Your task to perform on an android device: Add "asus zenbook" to the cart on target Image 0: 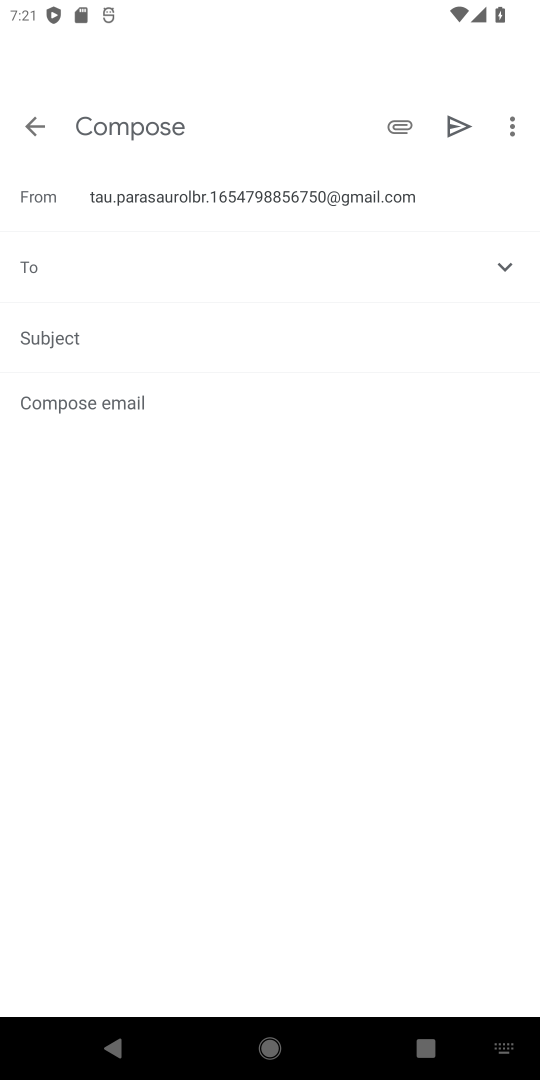
Step 0: press home button
Your task to perform on an android device: Add "asus zenbook" to the cart on target Image 1: 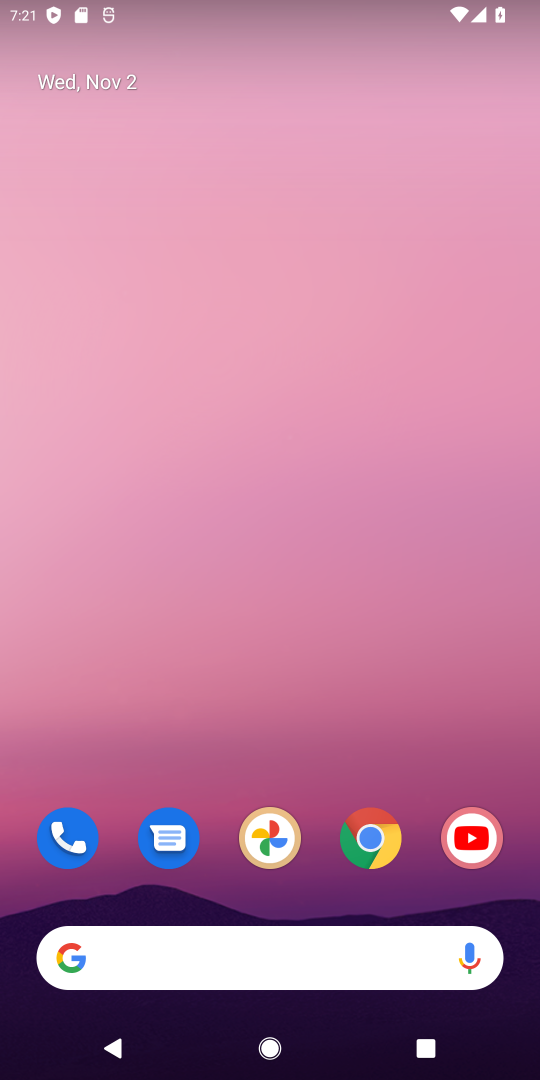
Step 1: click (388, 845)
Your task to perform on an android device: Add "asus zenbook" to the cart on target Image 2: 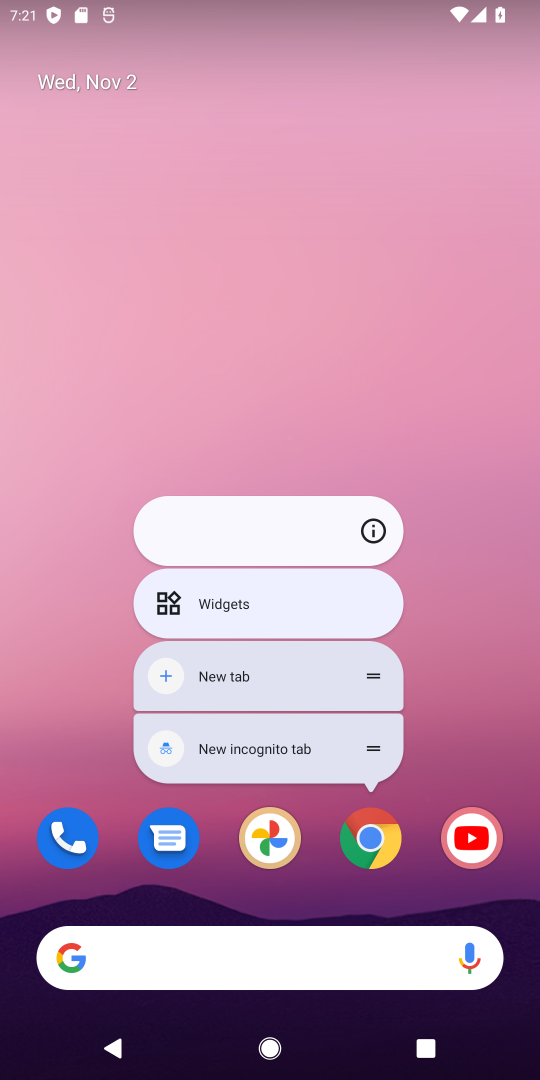
Step 2: click (371, 862)
Your task to perform on an android device: Add "asus zenbook" to the cart on target Image 3: 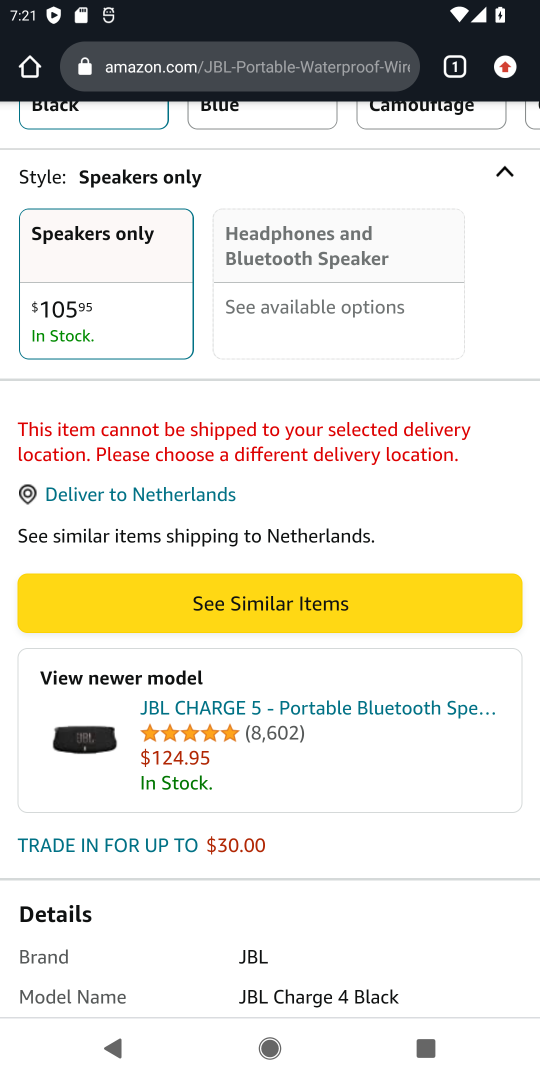
Step 3: click (319, 80)
Your task to perform on an android device: Add "asus zenbook" to the cart on target Image 4: 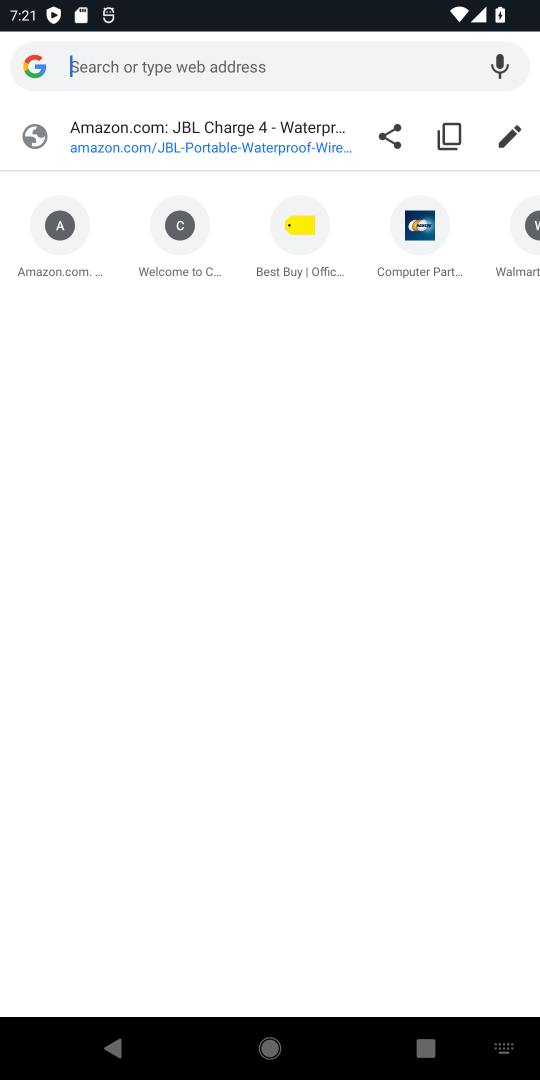
Step 4: type "target"
Your task to perform on an android device: Add "asus zenbook" to the cart on target Image 5: 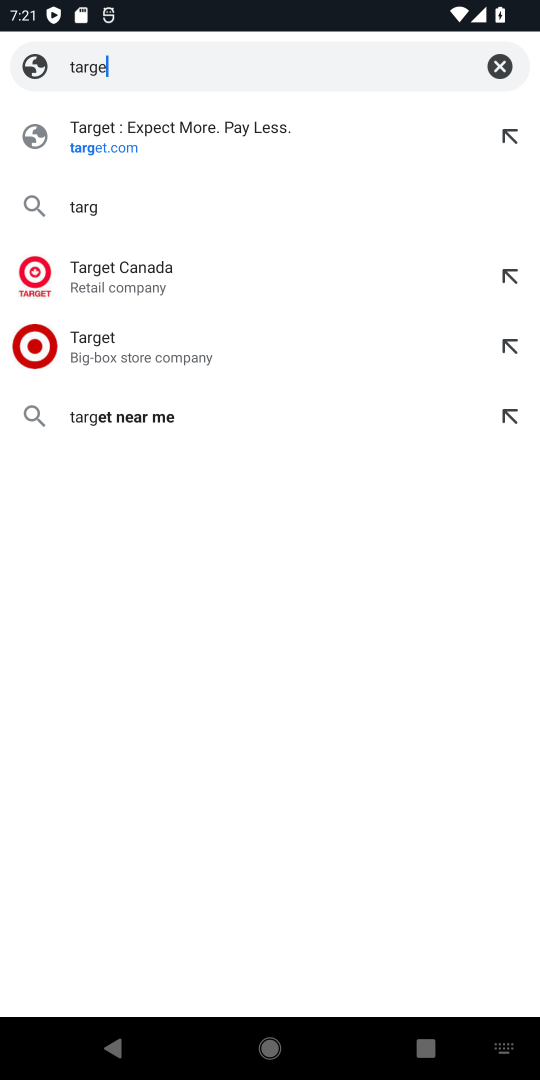
Step 5: type ""
Your task to perform on an android device: Add "asus zenbook" to the cart on target Image 6: 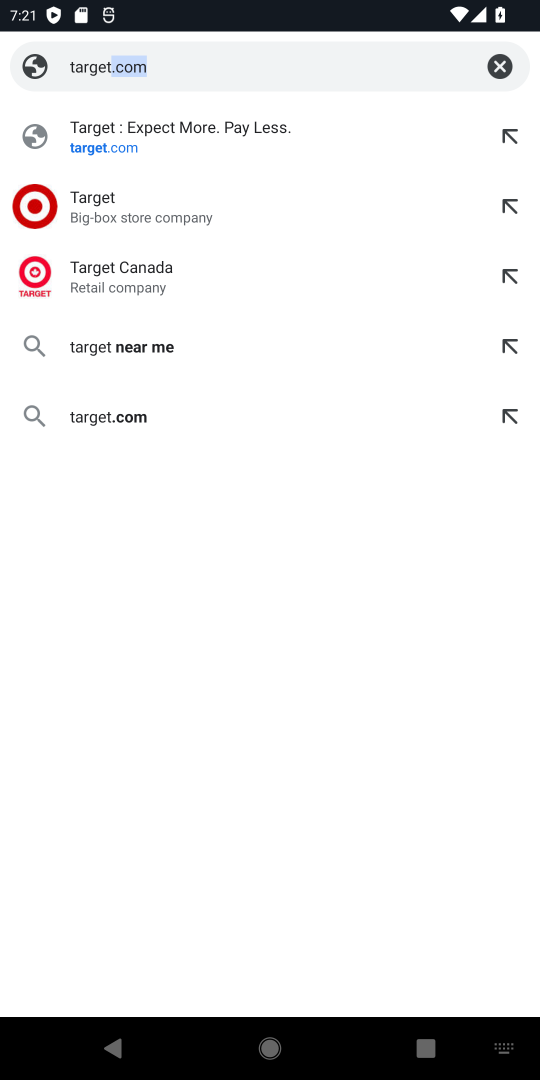
Step 6: press enter
Your task to perform on an android device: Add "asus zenbook" to the cart on target Image 7: 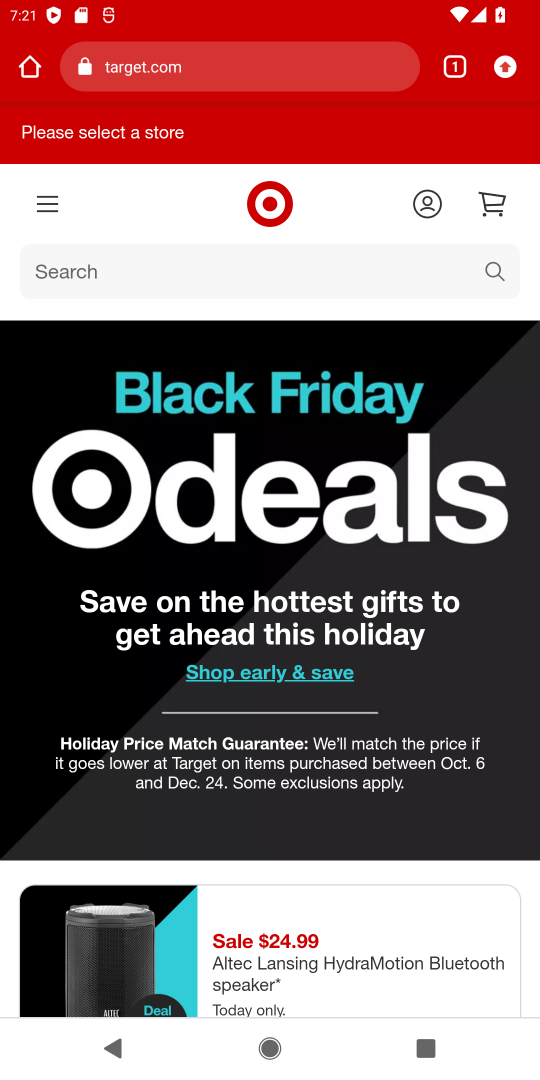
Step 7: click (215, 284)
Your task to perform on an android device: Add "asus zenbook" to the cart on target Image 8: 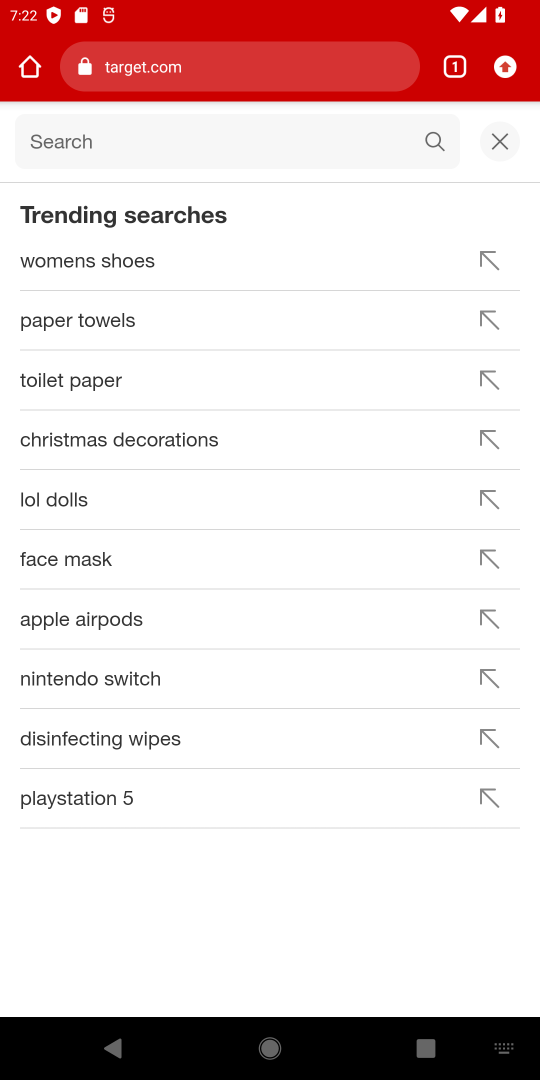
Step 8: type "asus zenbook"
Your task to perform on an android device: Add "asus zenbook" to the cart on target Image 9: 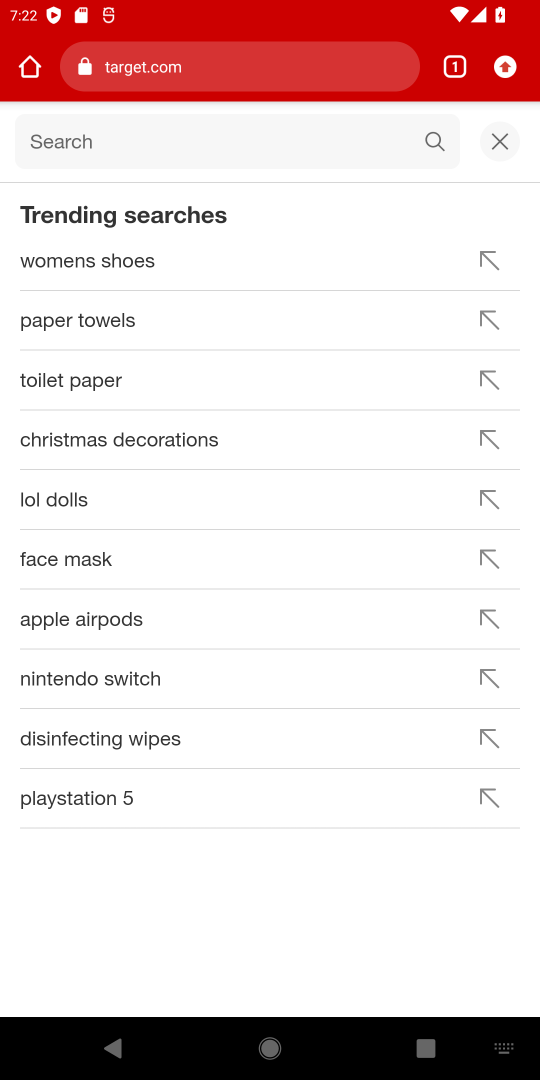
Step 9: type ""
Your task to perform on an android device: Add "asus zenbook" to the cart on target Image 10: 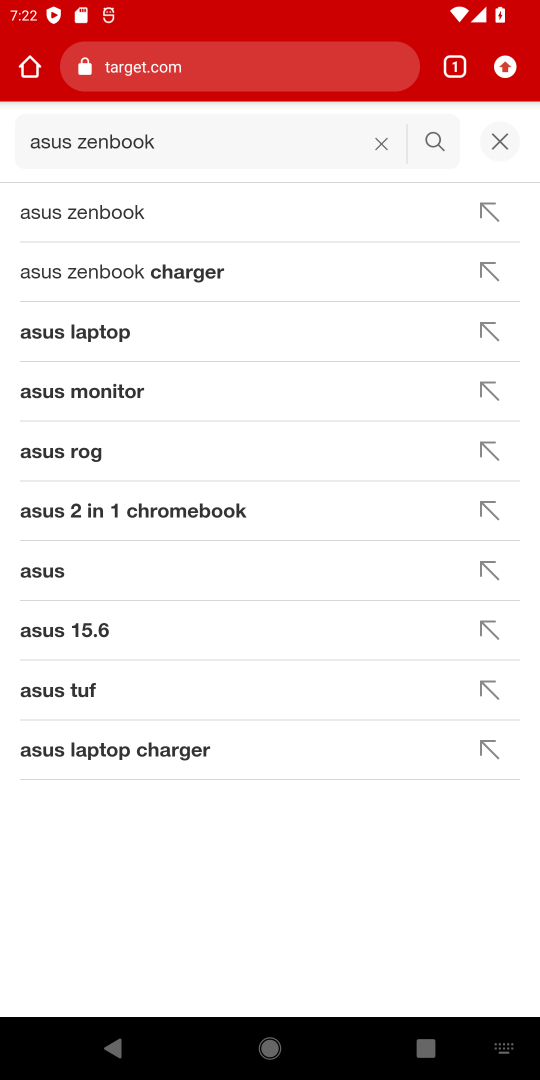
Step 10: press enter
Your task to perform on an android device: Add "asus zenbook" to the cart on target Image 11: 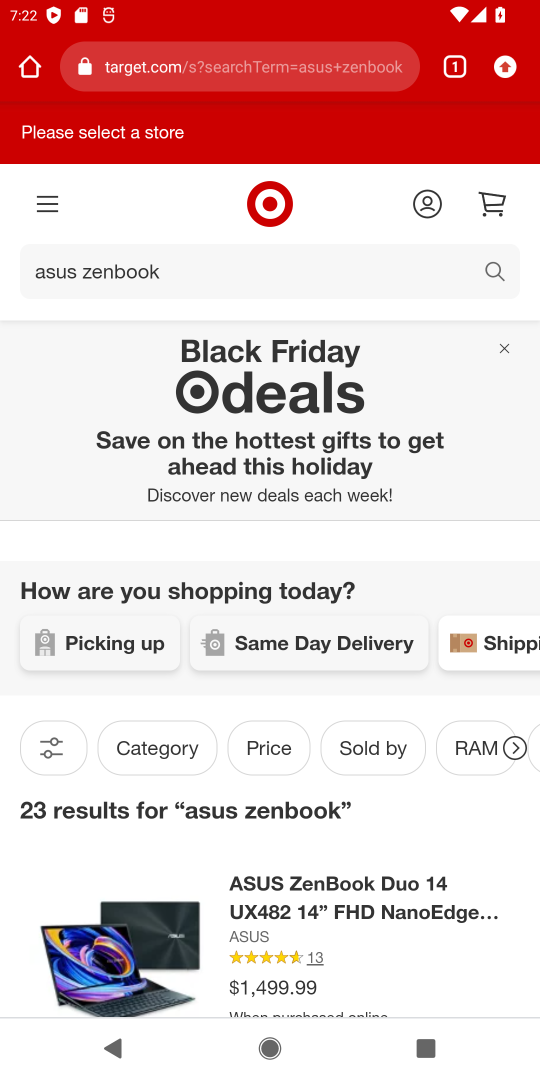
Step 11: drag from (287, 767) to (316, 441)
Your task to perform on an android device: Add "asus zenbook" to the cart on target Image 12: 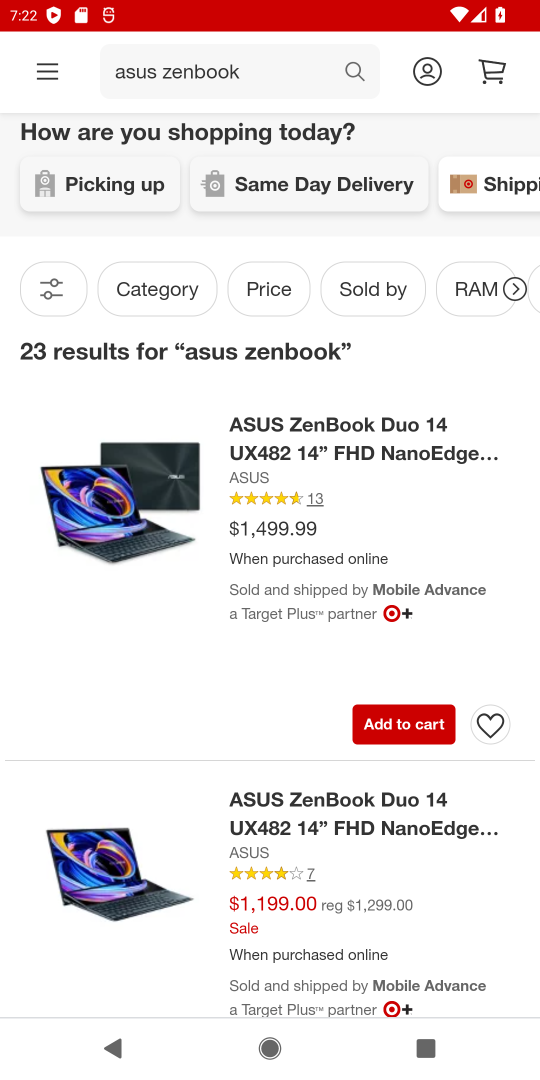
Step 12: click (373, 440)
Your task to perform on an android device: Add "asus zenbook" to the cart on target Image 13: 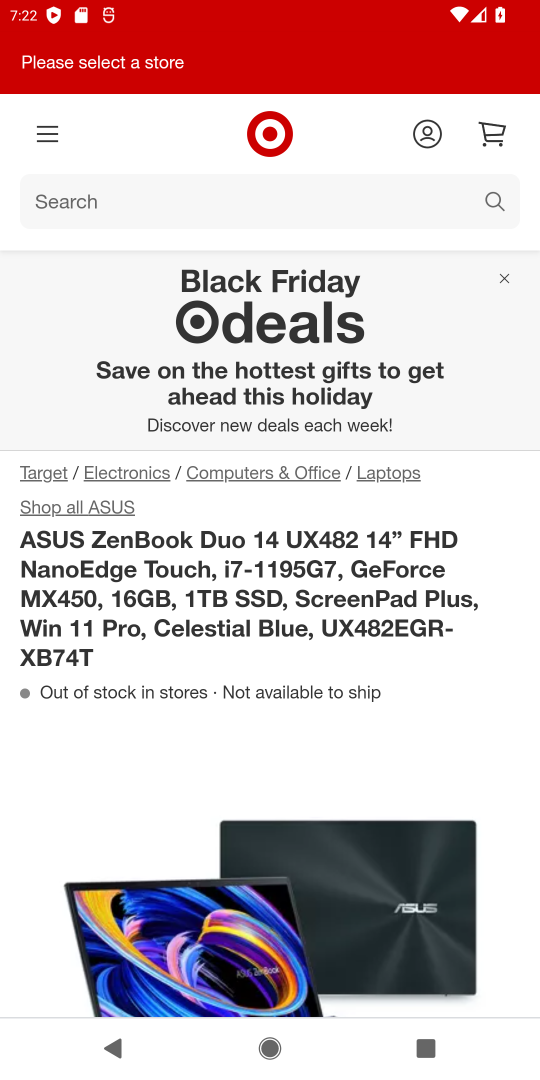
Step 13: drag from (380, 774) to (368, 306)
Your task to perform on an android device: Add "asus zenbook" to the cart on target Image 14: 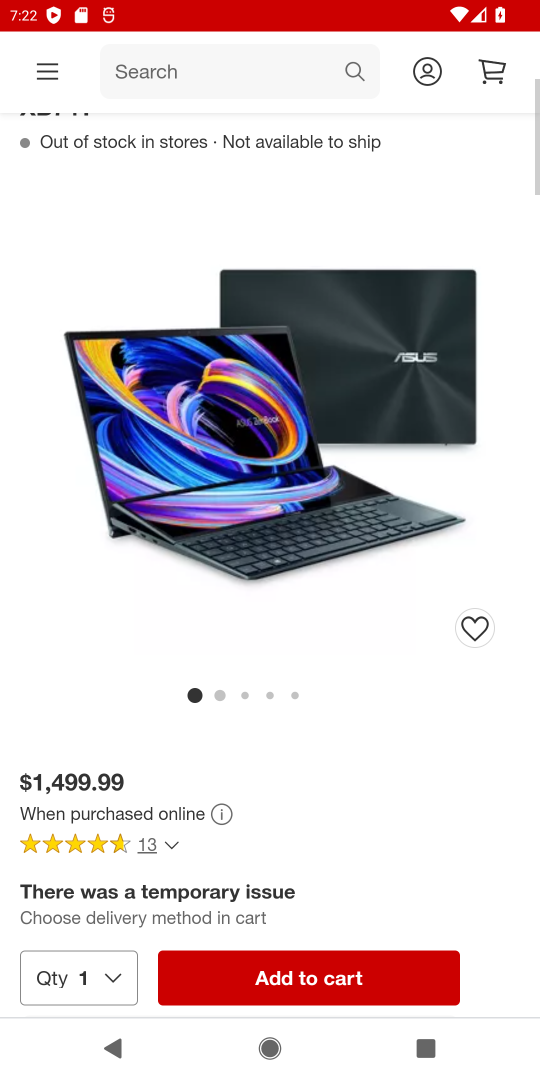
Step 14: drag from (341, 872) to (383, 658)
Your task to perform on an android device: Add "asus zenbook" to the cart on target Image 15: 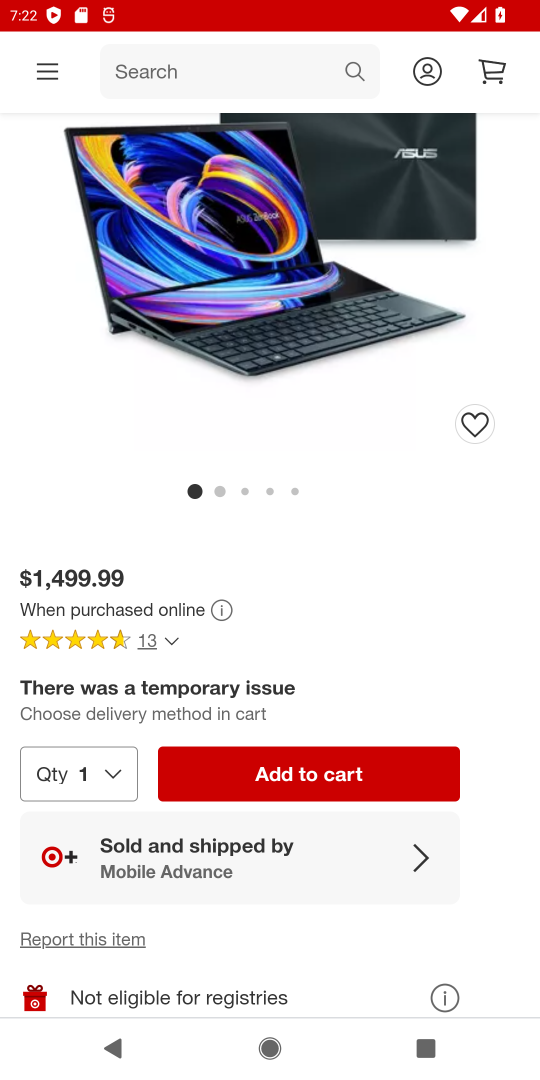
Step 15: click (321, 767)
Your task to perform on an android device: Add "asus zenbook" to the cart on target Image 16: 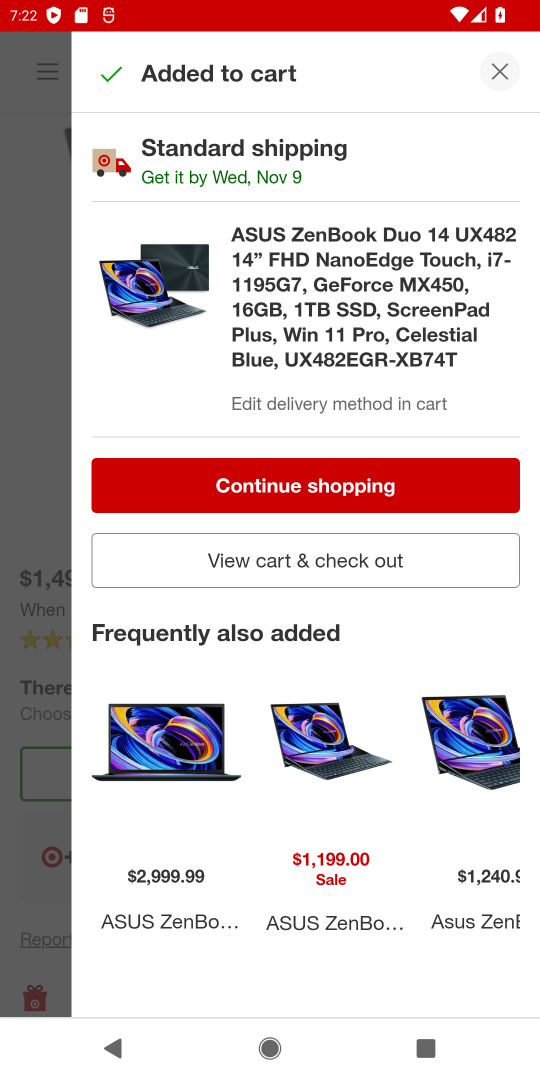
Step 16: click (302, 566)
Your task to perform on an android device: Add "asus zenbook" to the cart on target Image 17: 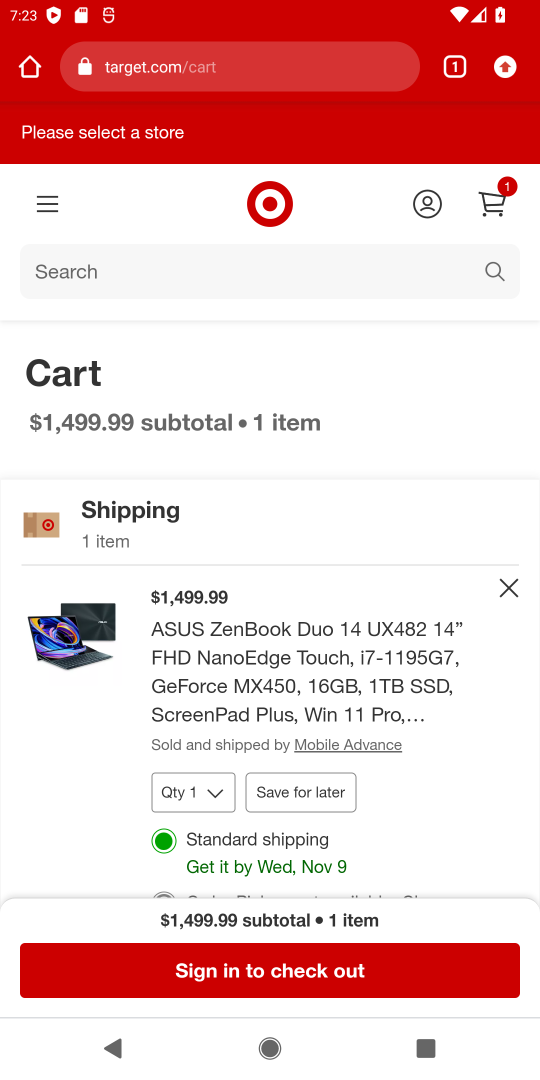
Step 17: click (322, 973)
Your task to perform on an android device: Add "asus zenbook" to the cart on target Image 18: 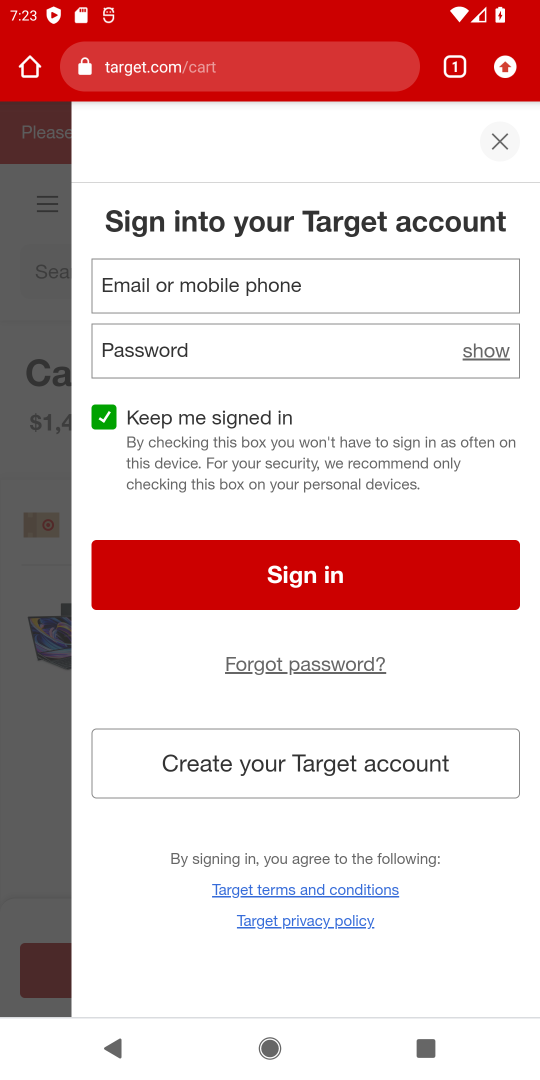
Step 18: task complete